Your task to perform on an android device: Do I have any events today? Image 0: 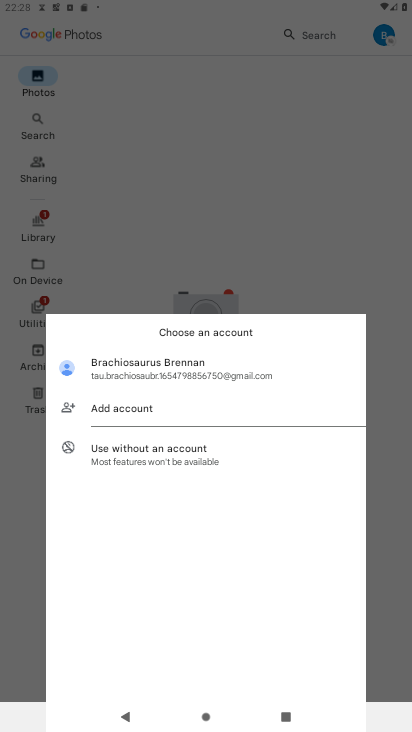
Step 0: drag from (292, 602) to (324, 564)
Your task to perform on an android device: Do I have any events today? Image 1: 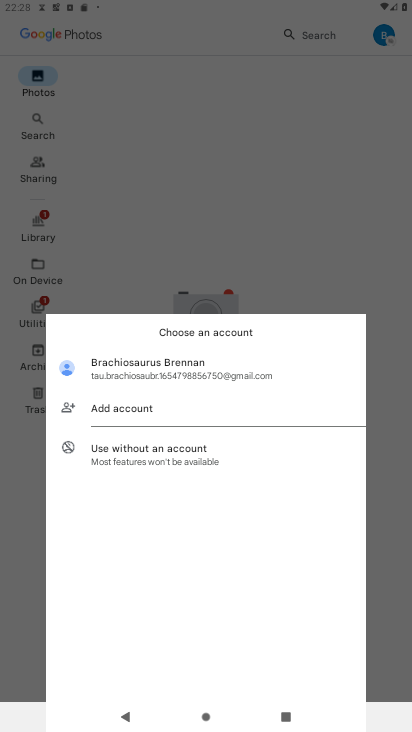
Step 1: press home button
Your task to perform on an android device: Do I have any events today? Image 2: 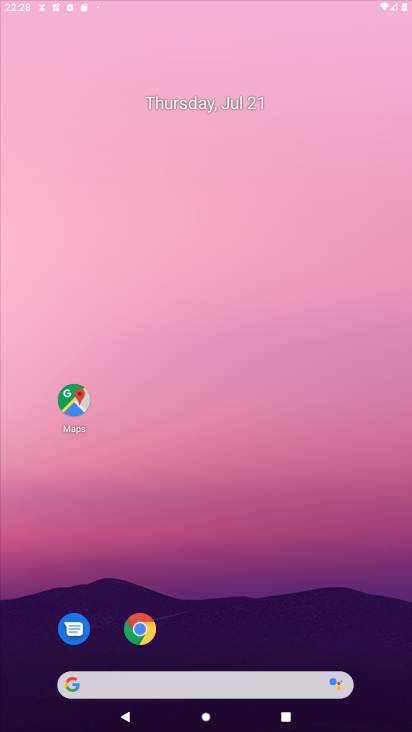
Step 2: click (249, 447)
Your task to perform on an android device: Do I have any events today? Image 3: 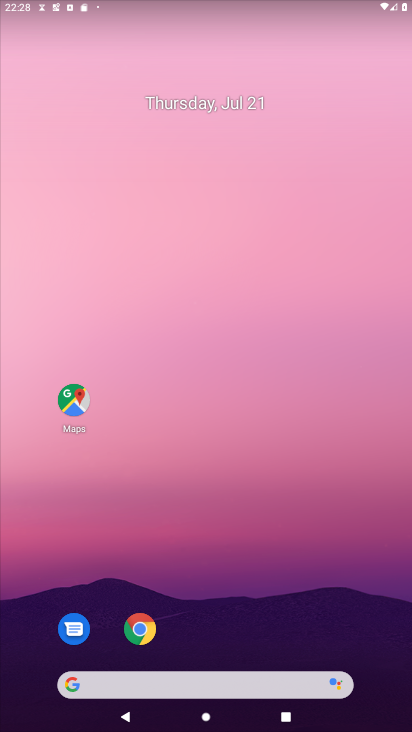
Step 3: drag from (220, 571) to (285, 116)
Your task to perform on an android device: Do I have any events today? Image 4: 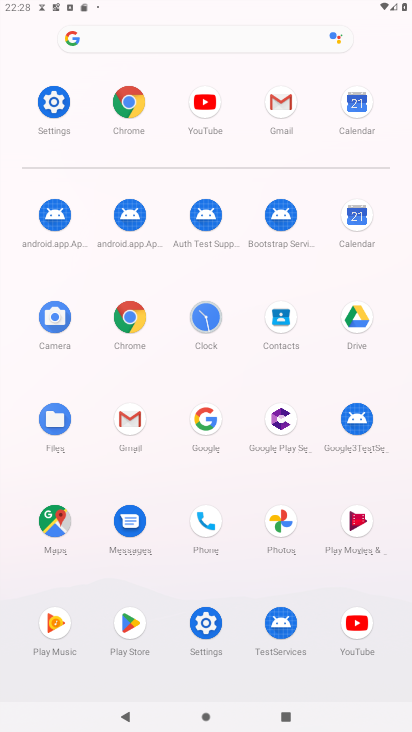
Step 4: click (357, 239)
Your task to perform on an android device: Do I have any events today? Image 5: 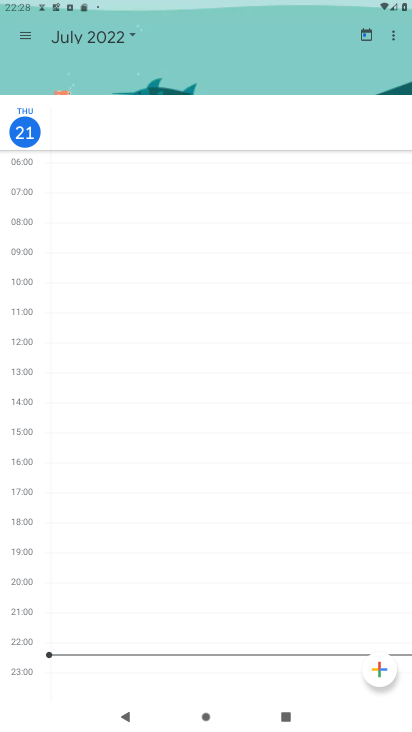
Step 5: task complete